Your task to perform on an android device: Open sound settings Image 0: 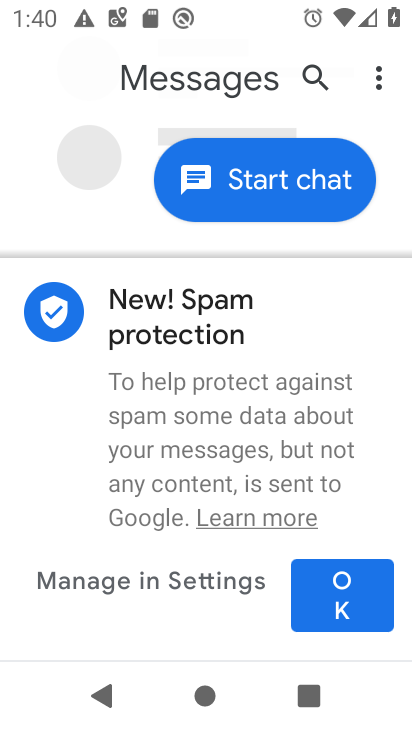
Step 0: press back button
Your task to perform on an android device: Open sound settings Image 1: 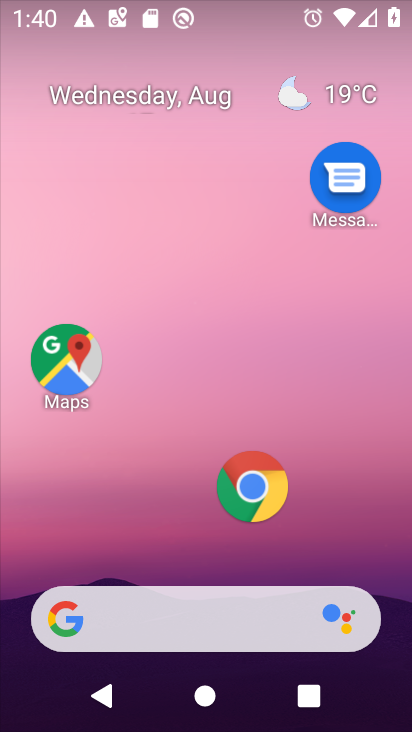
Step 1: drag from (136, 584) to (210, 77)
Your task to perform on an android device: Open sound settings Image 2: 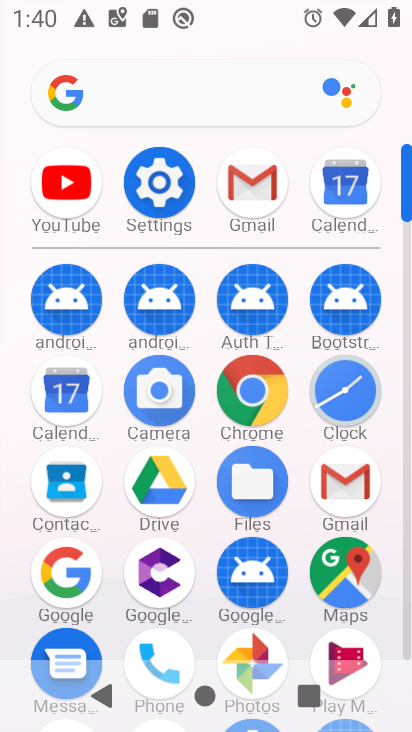
Step 2: click (162, 181)
Your task to perform on an android device: Open sound settings Image 3: 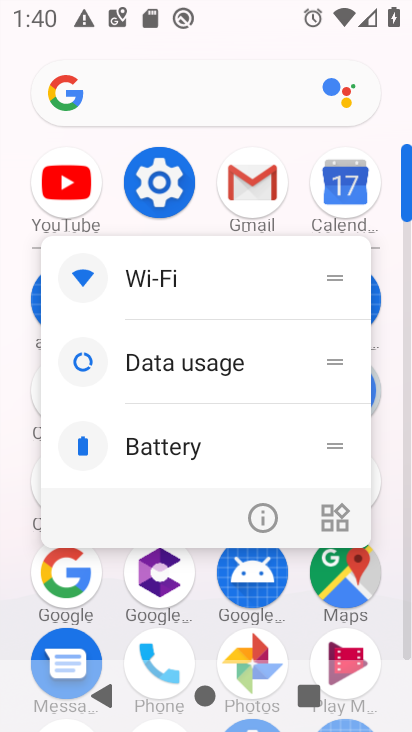
Step 3: click (162, 181)
Your task to perform on an android device: Open sound settings Image 4: 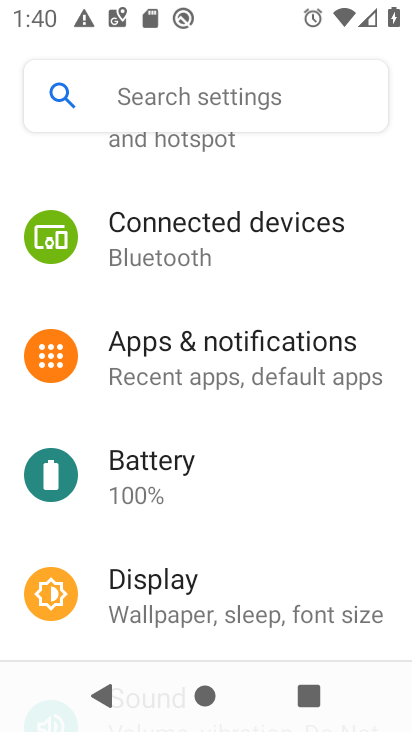
Step 4: drag from (187, 548) to (199, 102)
Your task to perform on an android device: Open sound settings Image 5: 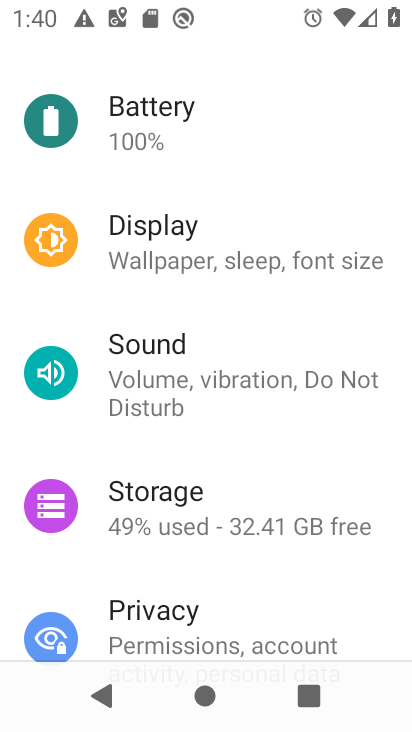
Step 5: click (168, 373)
Your task to perform on an android device: Open sound settings Image 6: 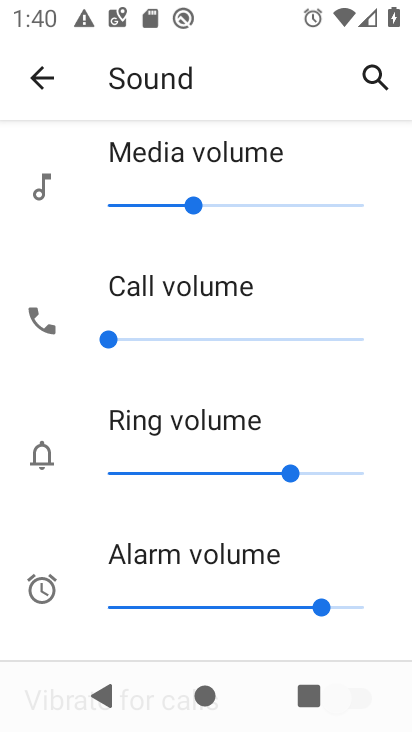
Step 6: task complete